Your task to perform on an android device: turn off priority inbox in the gmail app Image 0: 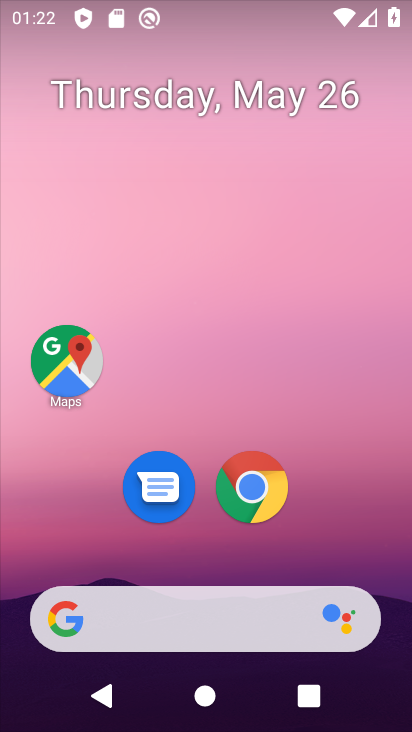
Step 0: drag from (225, 596) to (251, 120)
Your task to perform on an android device: turn off priority inbox in the gmail app Image 1: 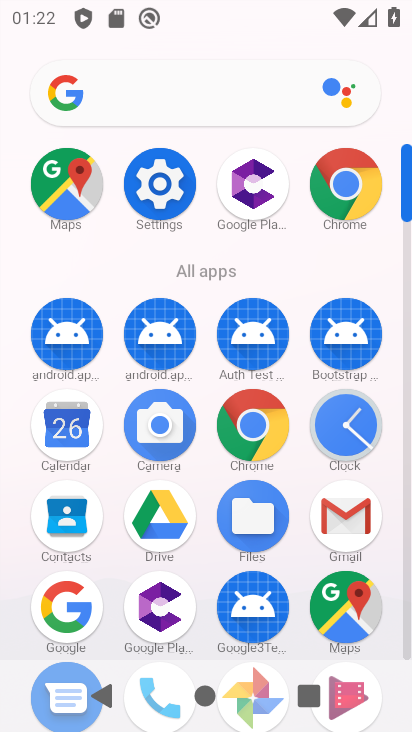
Step 1: drag from (183, 639) to (176, 204)
Your task to perform on an android device: turn off priority inbox in the gmail app Image 2: 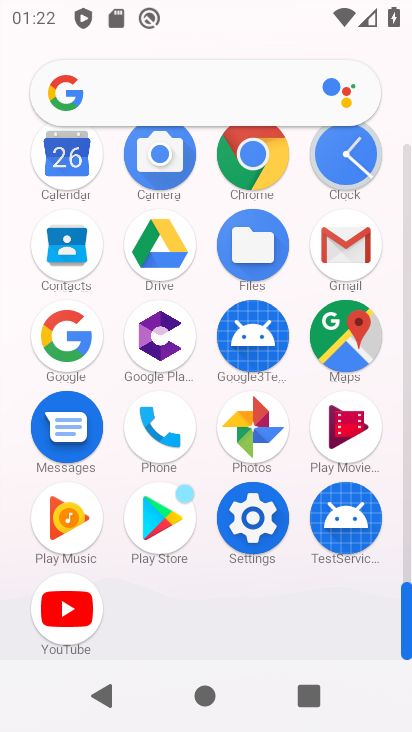
Step 2: click (337, 253)
Your task to perform on an android device: turn off priority inbox in the gmail app Image 3: 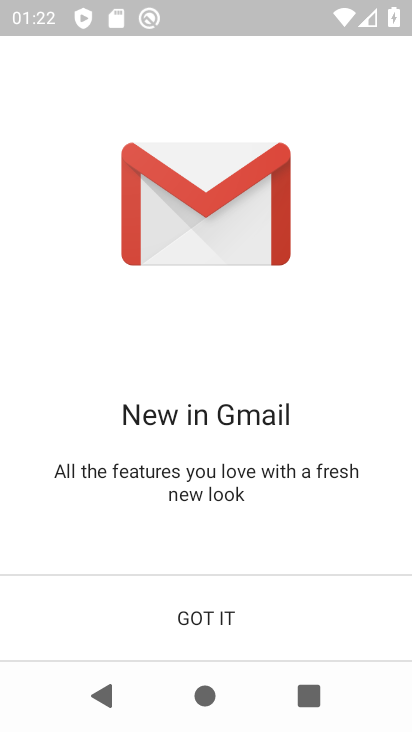
Step 3: click (255, 637)
Your task to perform on an android device: turn off priority inbox in the gmail app Image 4: 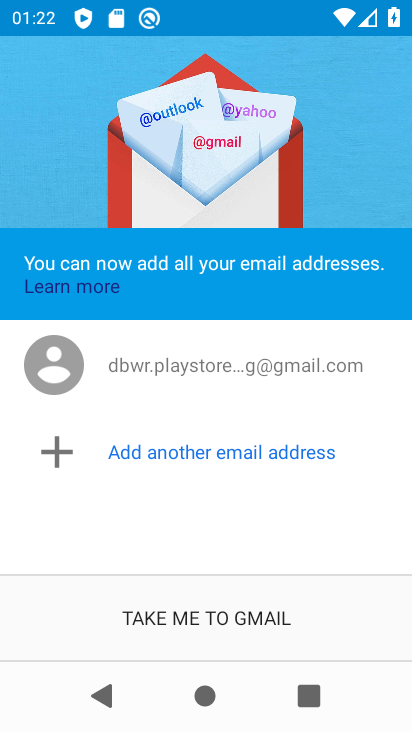
Step 4: click (247, 629)
Your task to perform on an android device: turn off priority inbox in the gmail app Image 5: 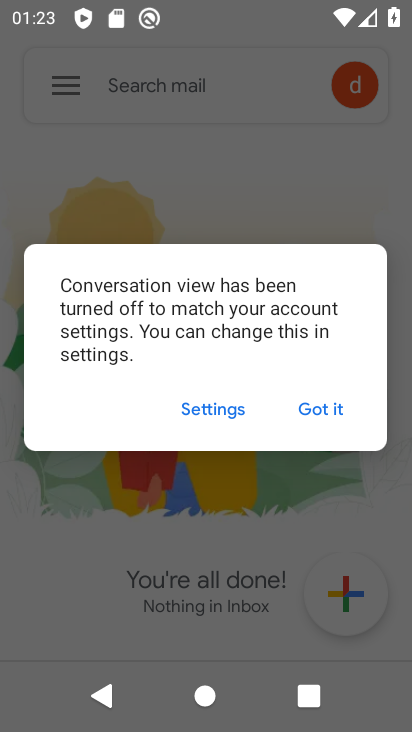
Step 5: click (313, 406)
Your task to perform on an android device: turn off priority inbox in the gmail app Image 6: 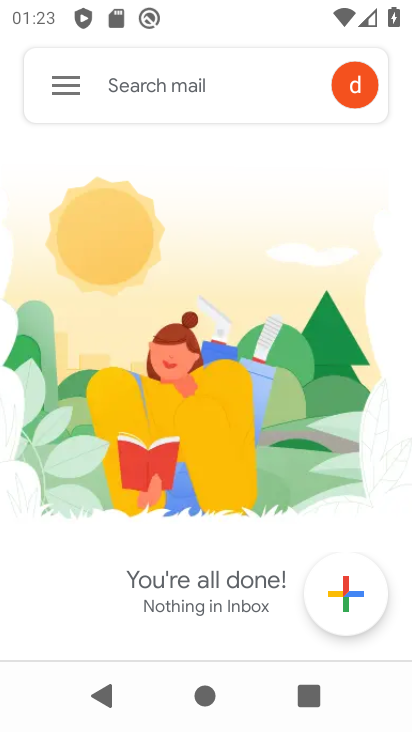
Step 6: click (58, 84)
Your task to perform on an android device: turn off priority inbox in the gmail app Image 7: 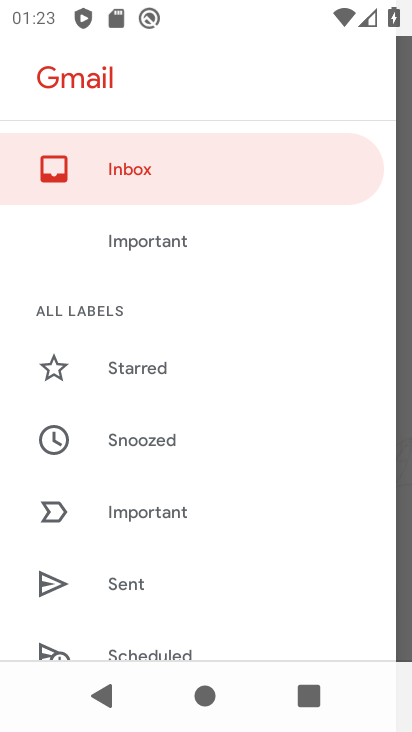
Step 7: drag from (222, 623) to (214, 102)
Your task to perform on an android device: turn off priority inbox in the gmail app Image 8: 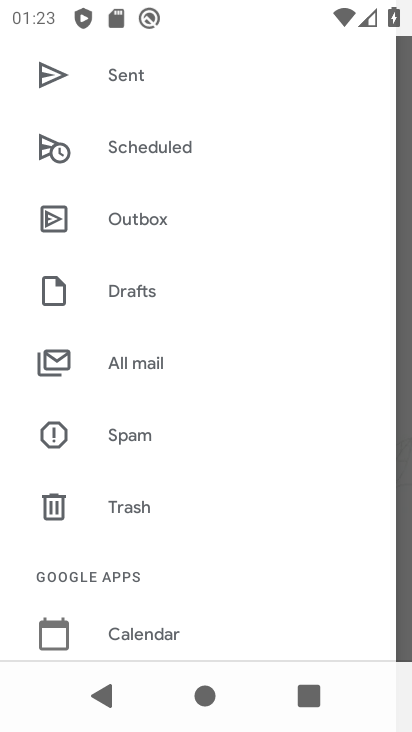
Step 8: drag from (177, 578) to (173, 48)
Your task to perform on an android device: turn off priority inbox in the gmail app Image 9: 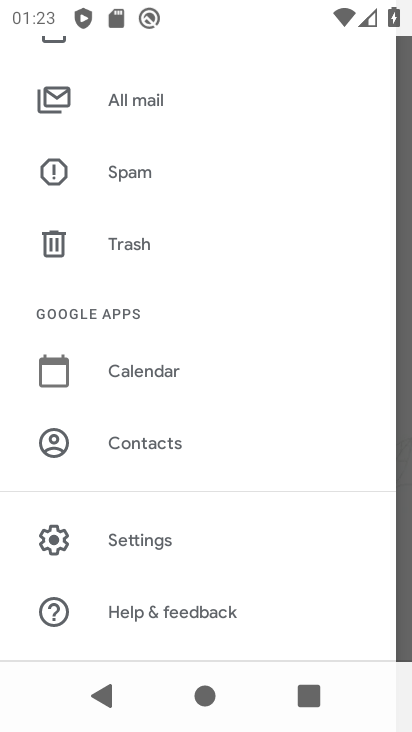
Step 9: click (153, 550)
Your task to perform on an android device: turn off priority inbox in the gmail app Image 10: 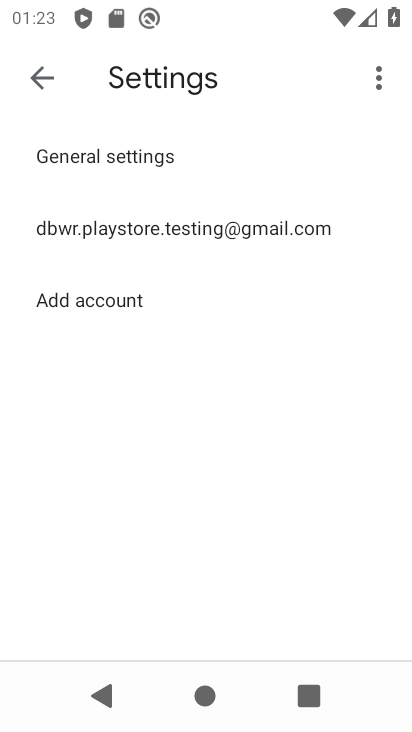
Step 10: click (173, 236)
Your task to perform on an android device: turn off priority inbox in the gmail app Image 11: 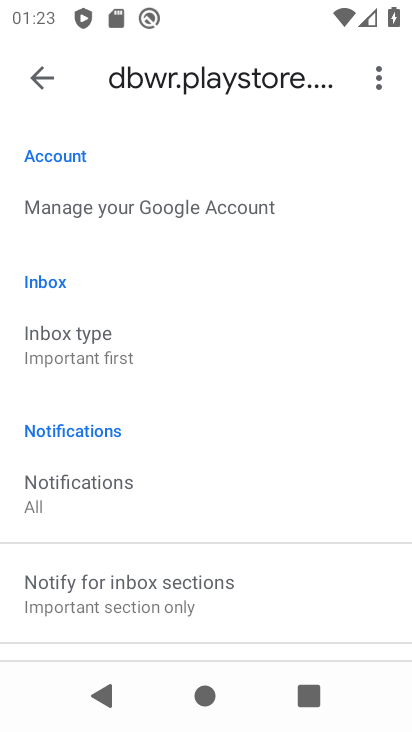
Step 11: click (93, 358)
Your task to perform on an android device: turn off priority inbox in the gmail app Image 12: 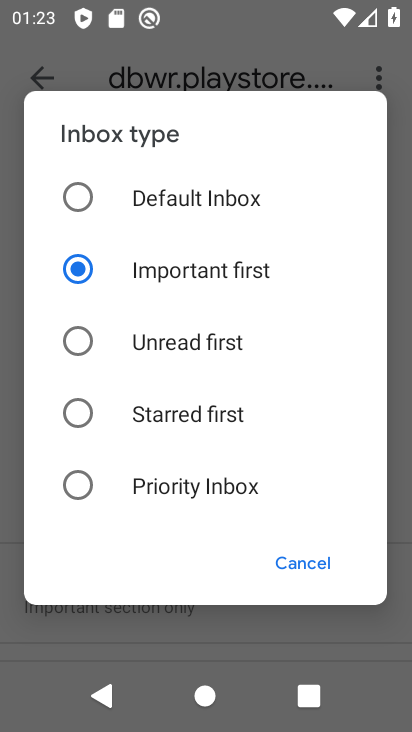
Step 12: click (153, 202)
Your task to perform on an android device: turn off priority inbox in the gmail app Image 13: 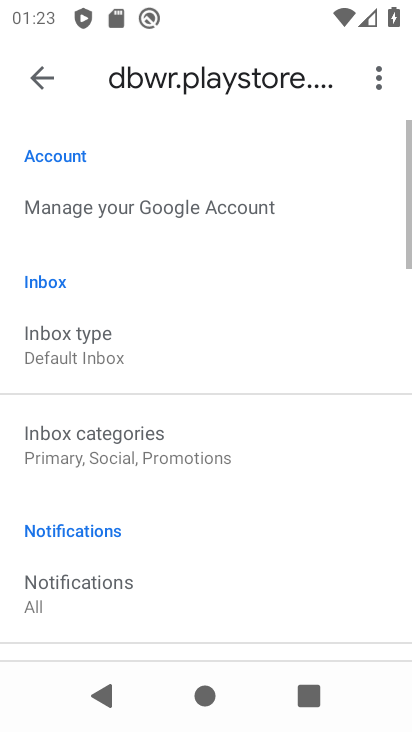
Step 13: task complete